Your task to perform on an android device: Go to ESPN.com Image 0: 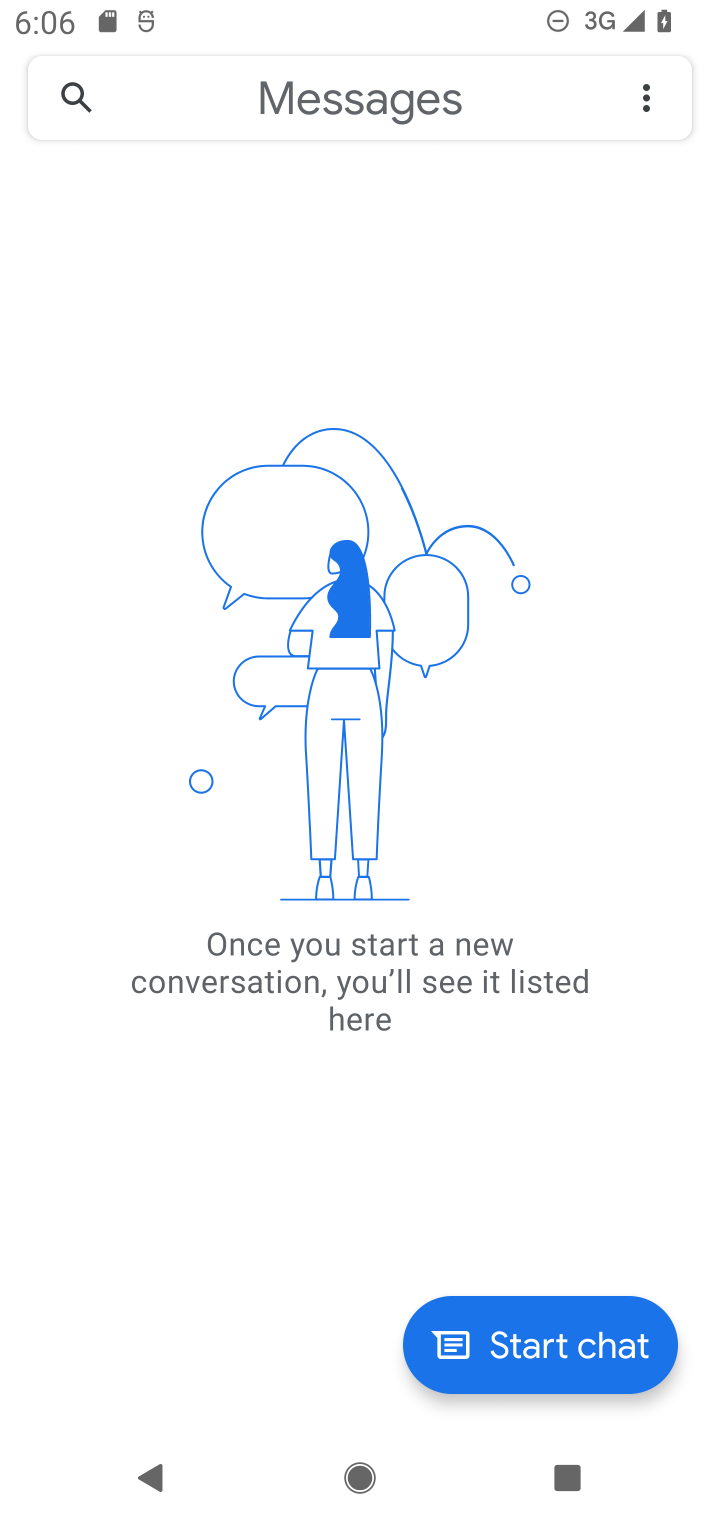
Step 0: press home button
Your task to perform on an android device: Go to ESPN.com Image 1: 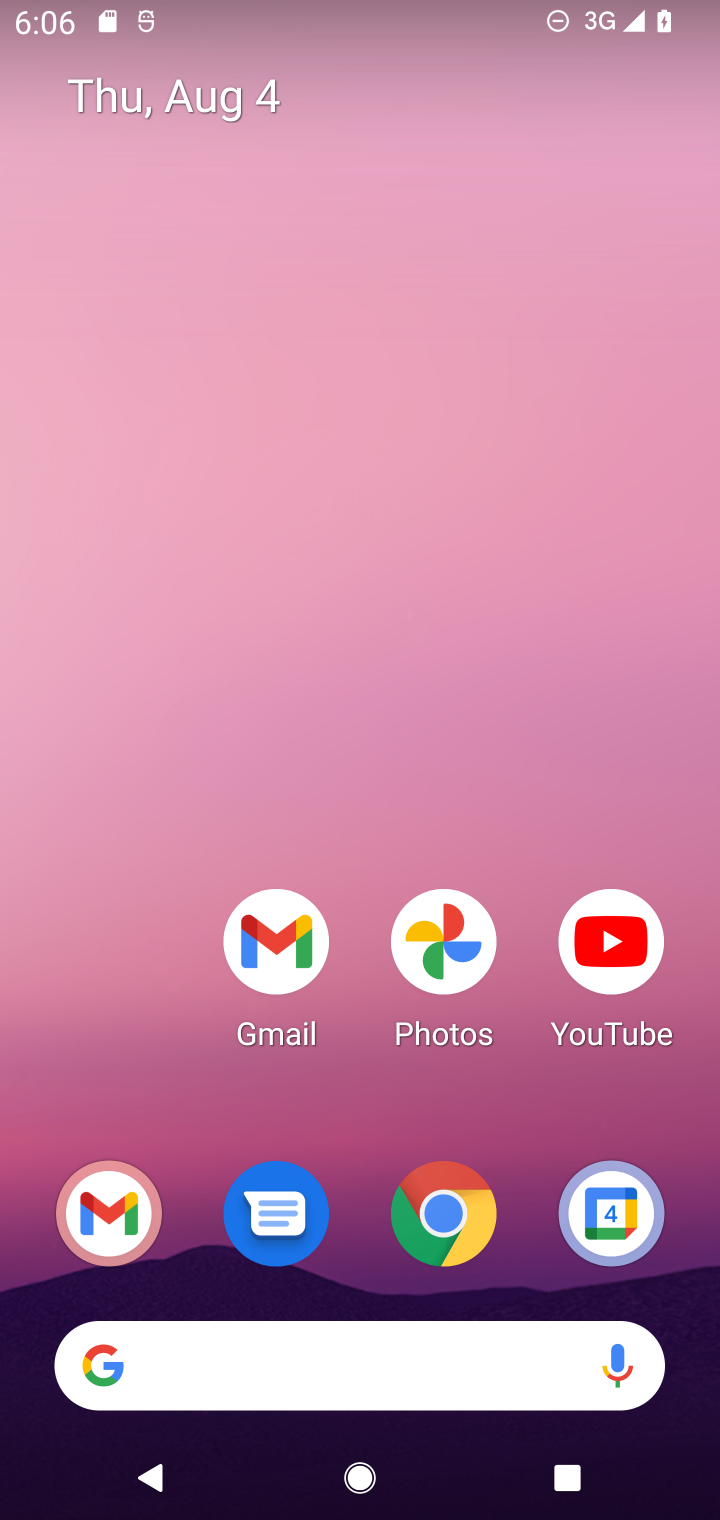
Step 1: press home button
Your task to perform on an android device: Go to ESPN.com Image 2: 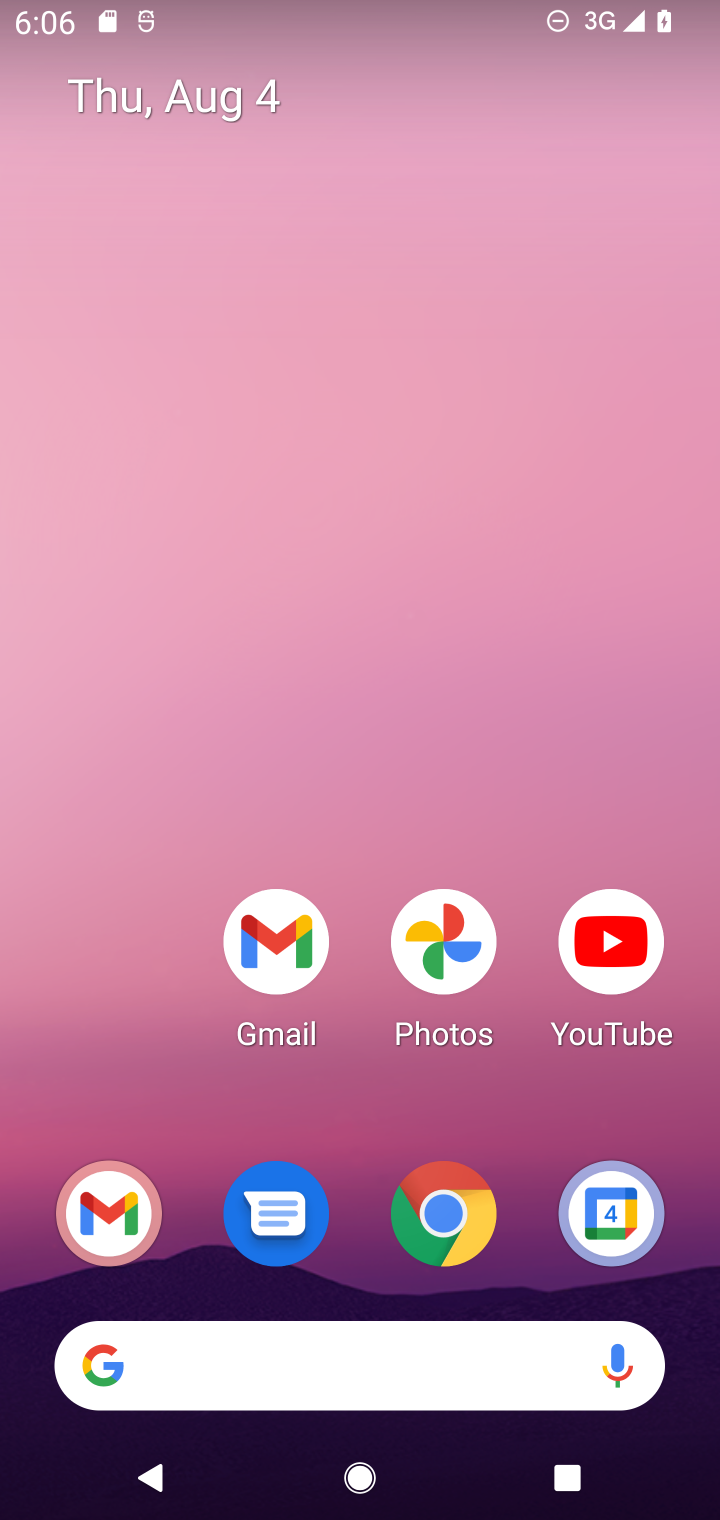
Step 2: drag from (155, 1096) to (131, 347)
Your task to perform on an android device: Go to ESPN.com Image 3: 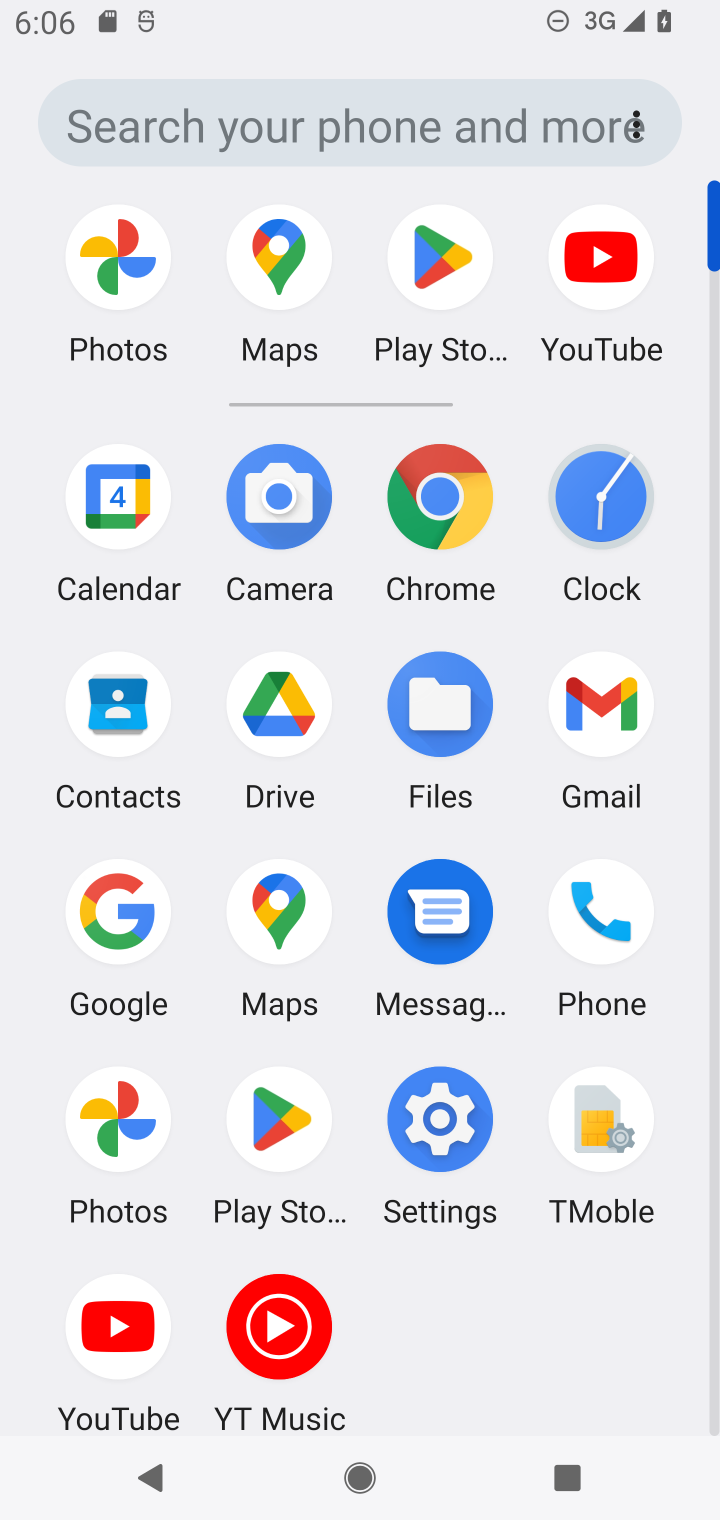
Step 3: click (455, 510)
Your task to perform on an android device: Go to ESPN.com Image 4: 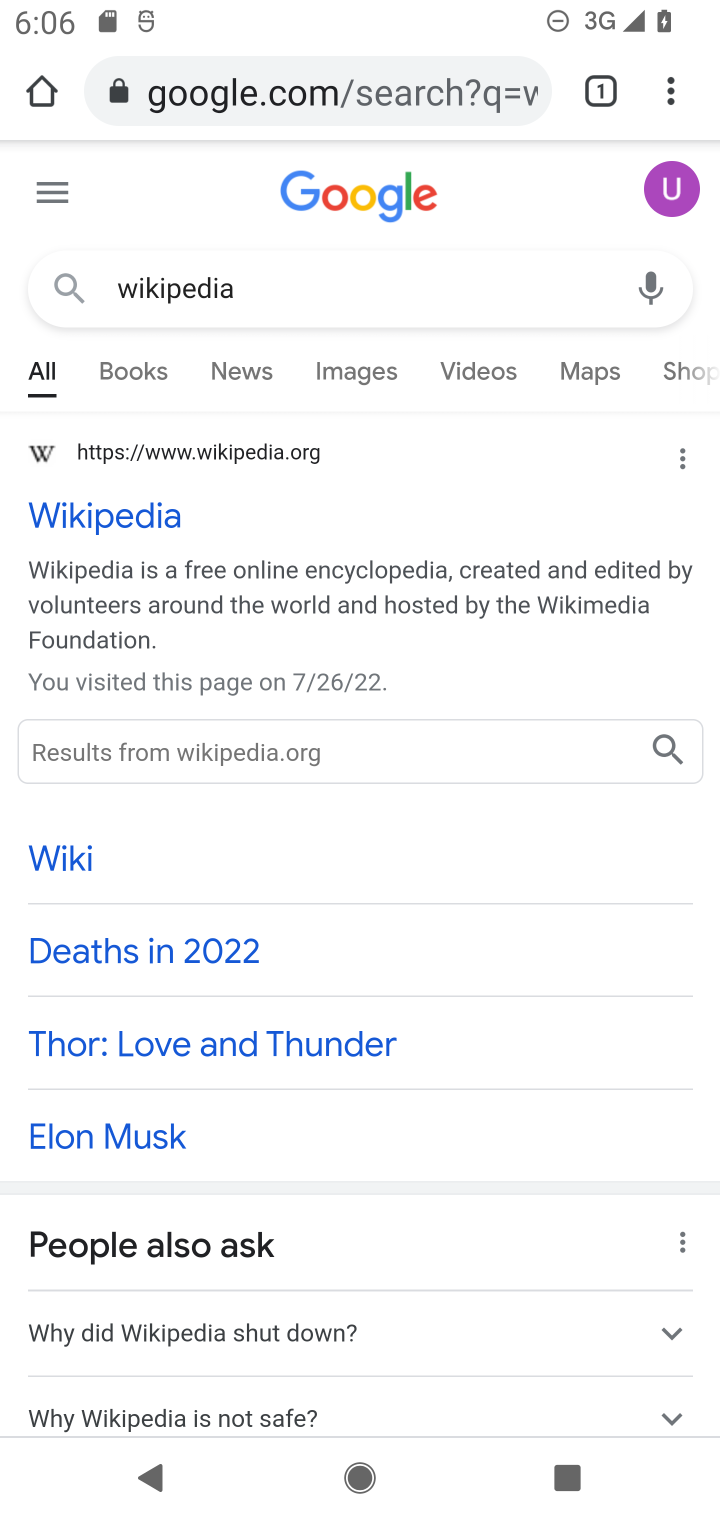
Step 4: click (400, 97)
Your task to perform on an android device: Go to ESPN.com Image 5: 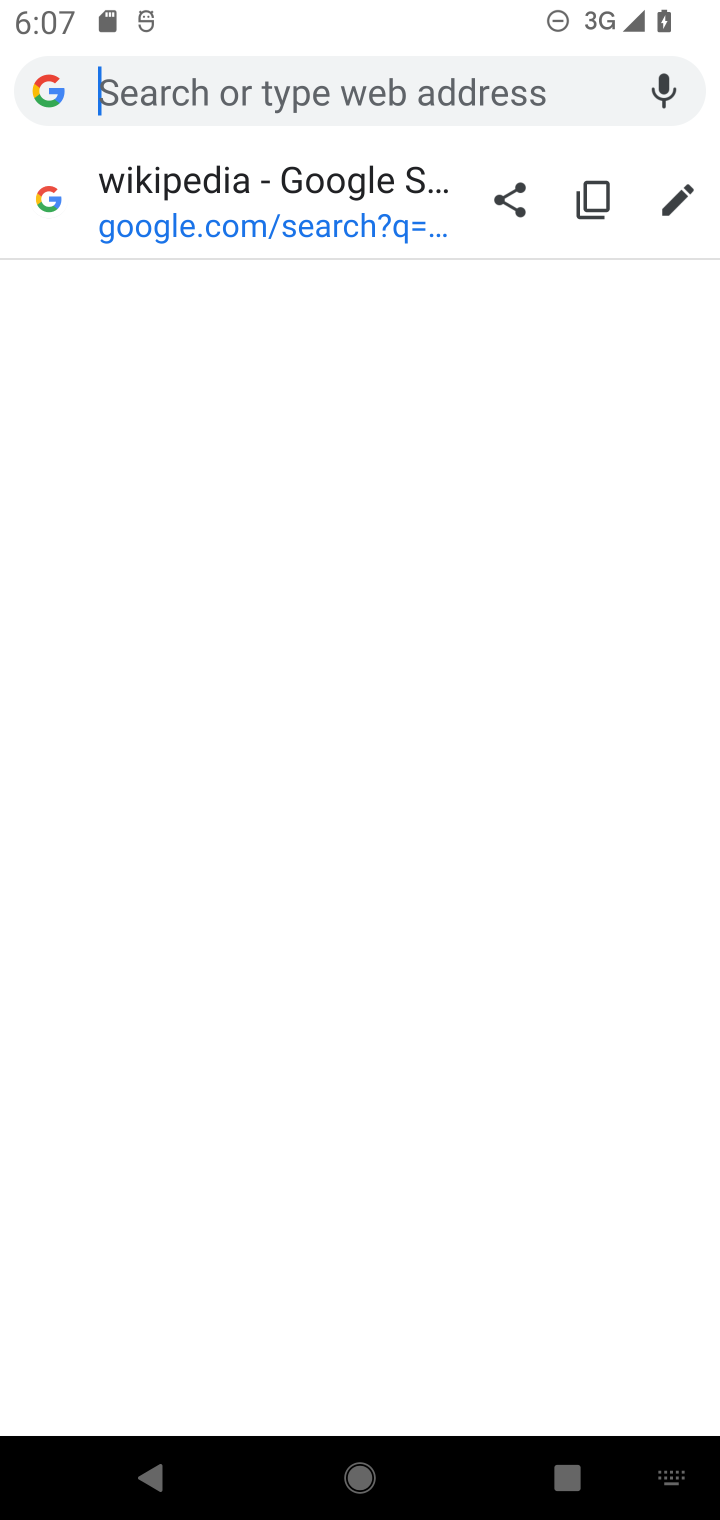
Step 5: type "espn.com"
Your task to perform on an android device: Go to ESPN.com Image 6: 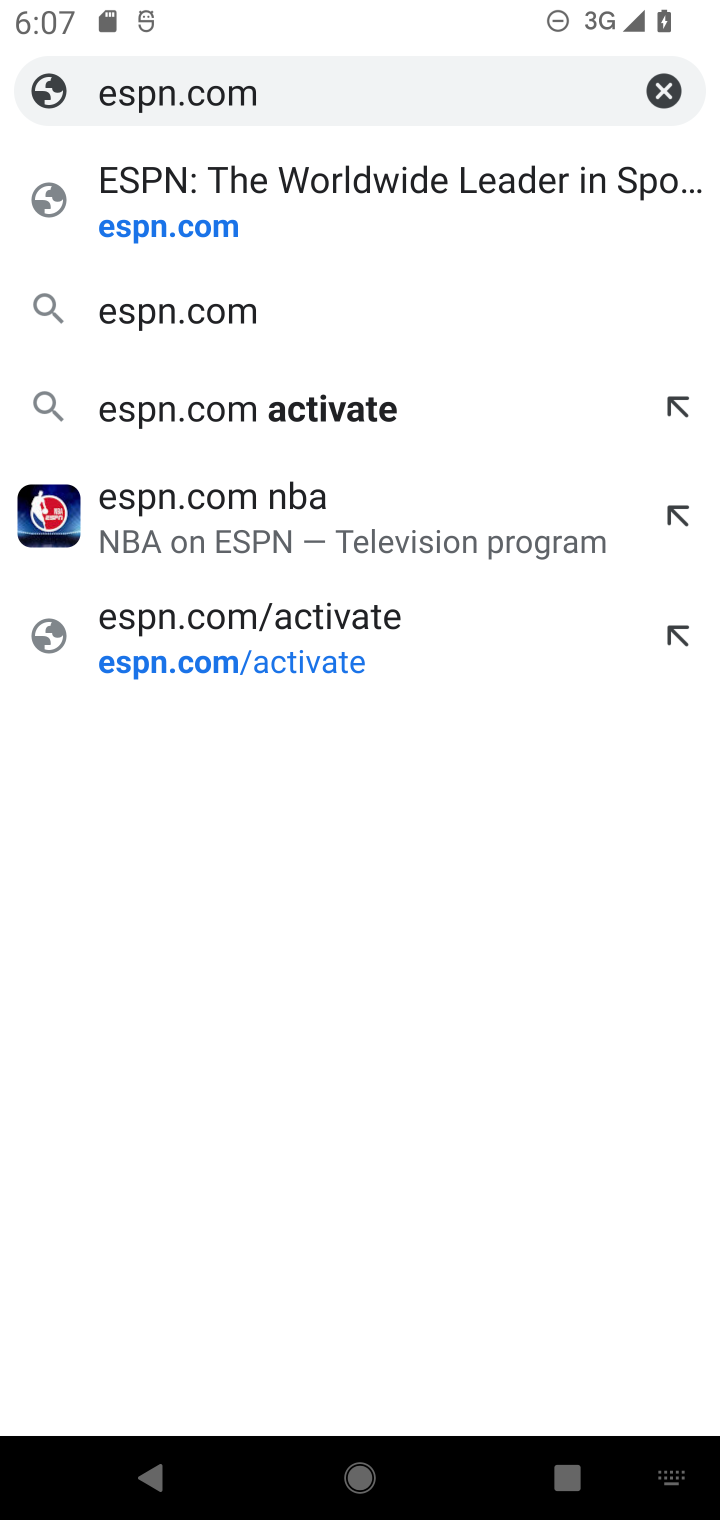
Step 6: click (373, 198)
Your task to perform on an android device: Go to ESPN.com Image 7: 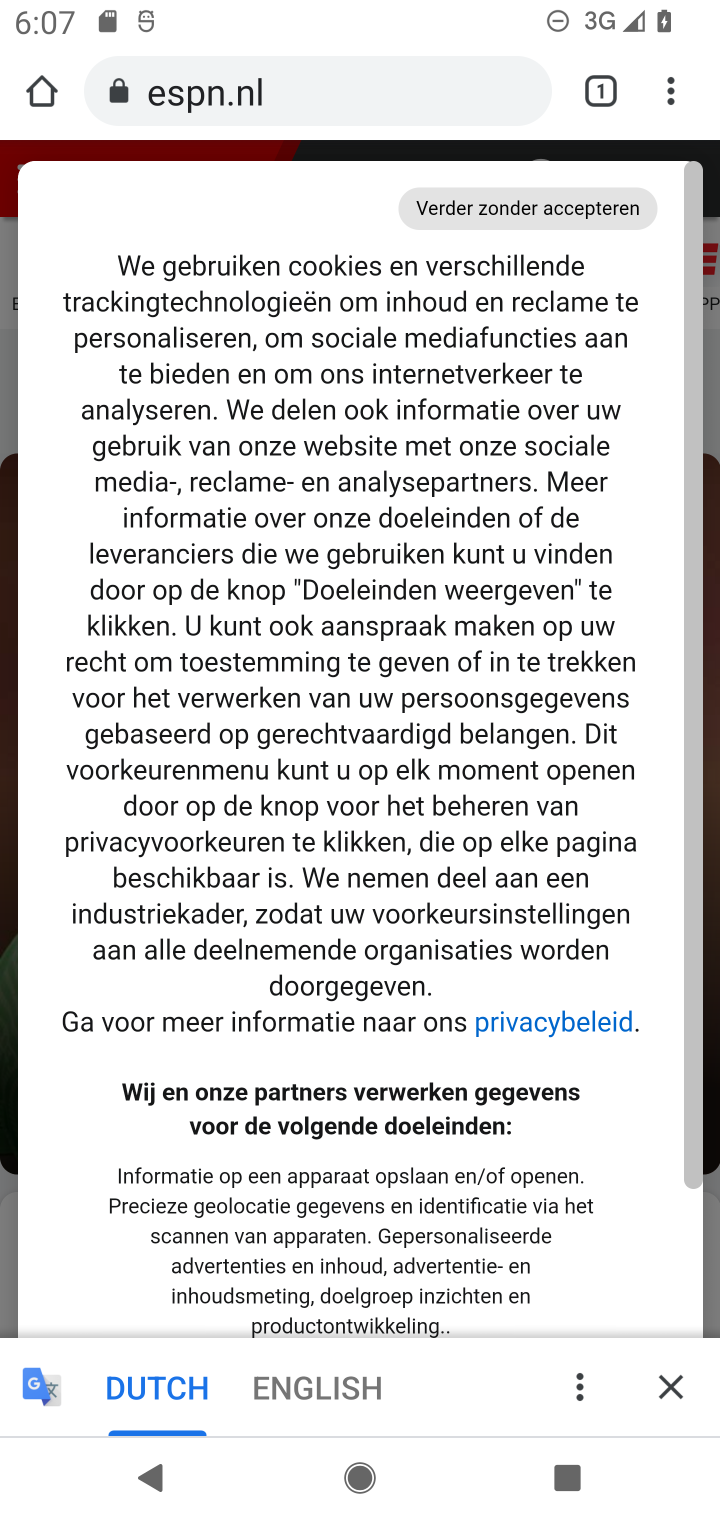
Step 7: task complete